Your task to perform on an android device: Go to Amazon Image 0: 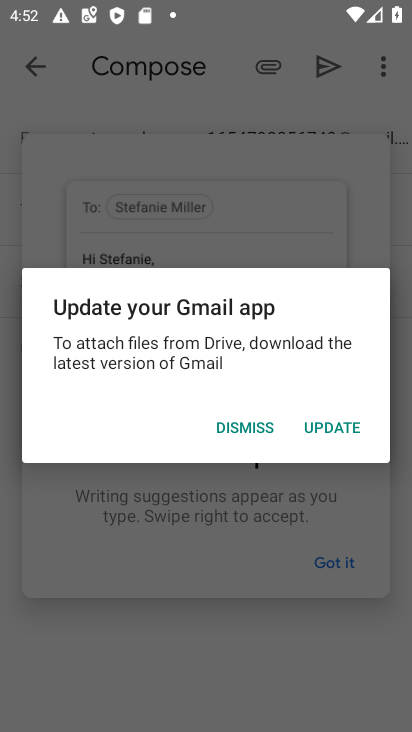
Step 0: press home button
Your task to perform on an android device: Go to Amazon Image 1: 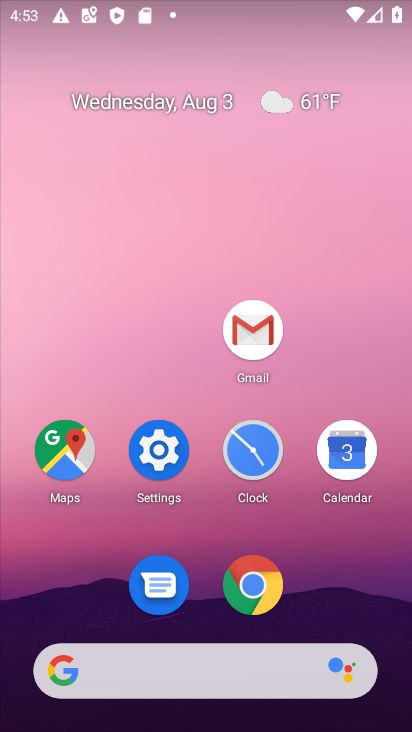
Step 1: click (252, 573)
Your task to perform on an android device: Go to Amazon Image 2: 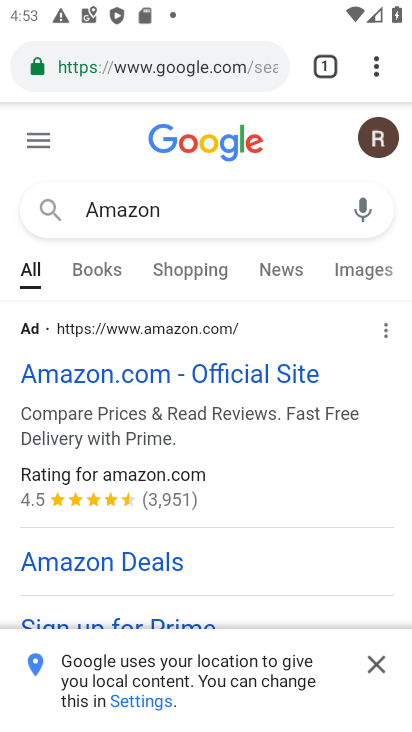
Step 2: task complete